Your task to perform on an android device: choose inbox layout in the gmail app Image 0: 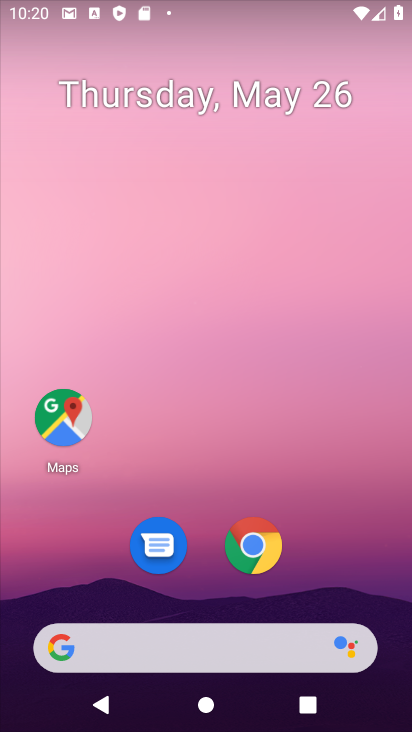
Step 0: press home button
Your task to perform on an android device: choose inbox layout in the gmail app Image 1: 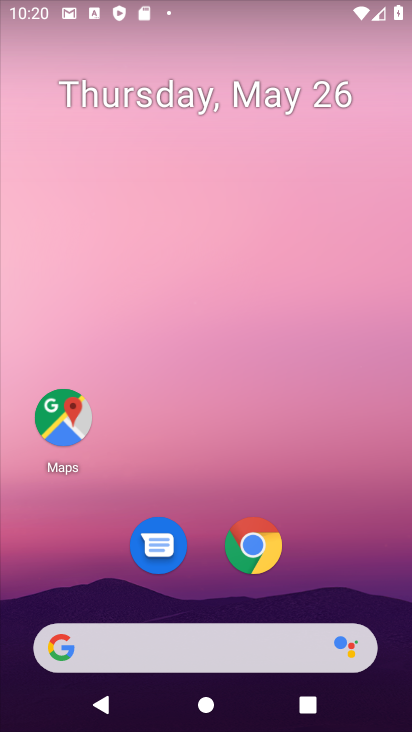
Step 1: drag from (301, 606) to (364, 80)
Your task to perform on an android device: choose inbox layout in the gmail app Image 2: 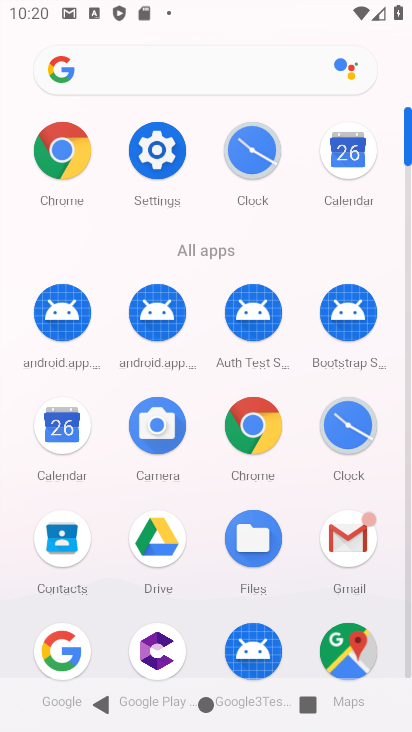
Step 2: click (349, 543)
Your task to perform on an android device: choose inbox layout in the gmail app Image 3: 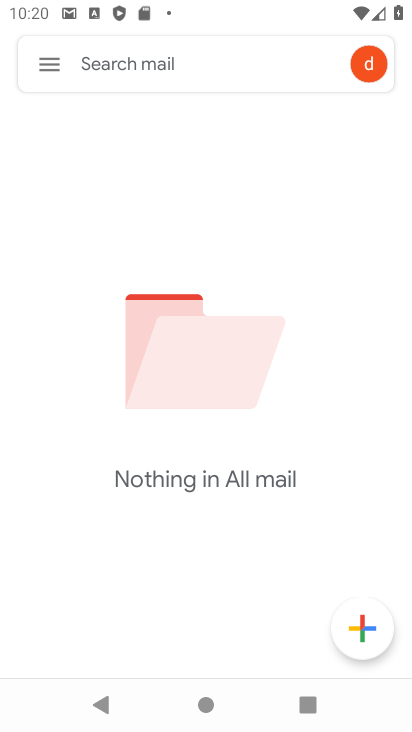
Step 3: click (45, 66)
Your task to perform on an android device: choose inbox layout in the gmail app Image 4: 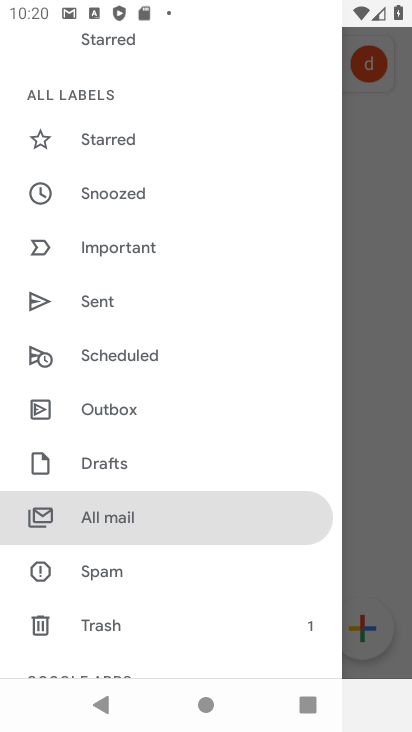
Step 4: drag from (181, 591) to (255, 160)
Your task to perform on an android device: choose inbox layout in the gmail app Image 5: 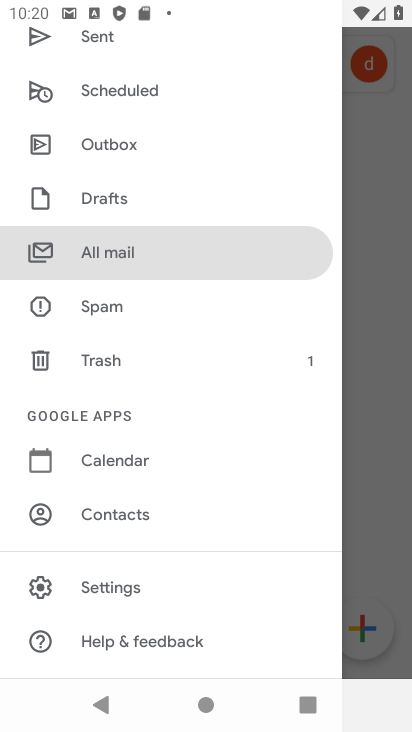
Step 5: click (130, 590)
Your task to perform on an android device: choose inbox layout in the gmail app Image 6: 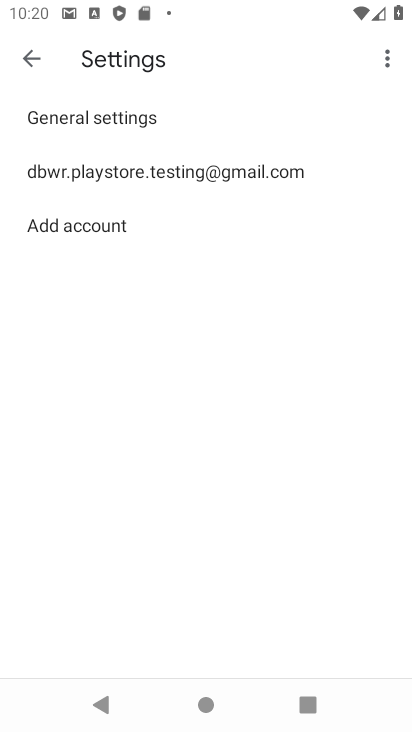
Step 6: click (104, 176)
Your task to perform on an android device: choose inbox layout in the gmail app Image 7: 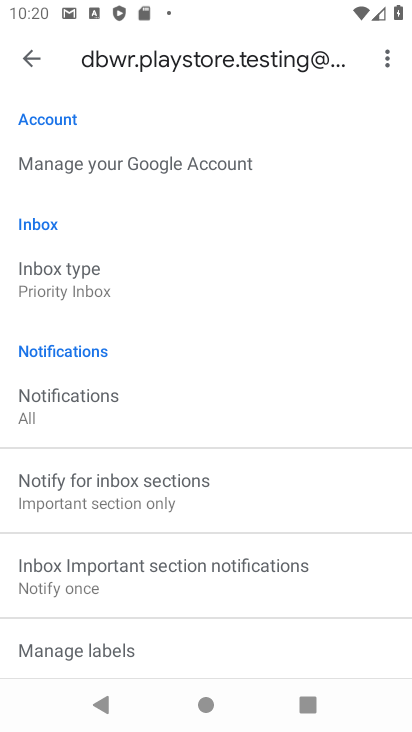
Step 7: task complete